Your task to perform on an android device: What is the news today? Image 0: 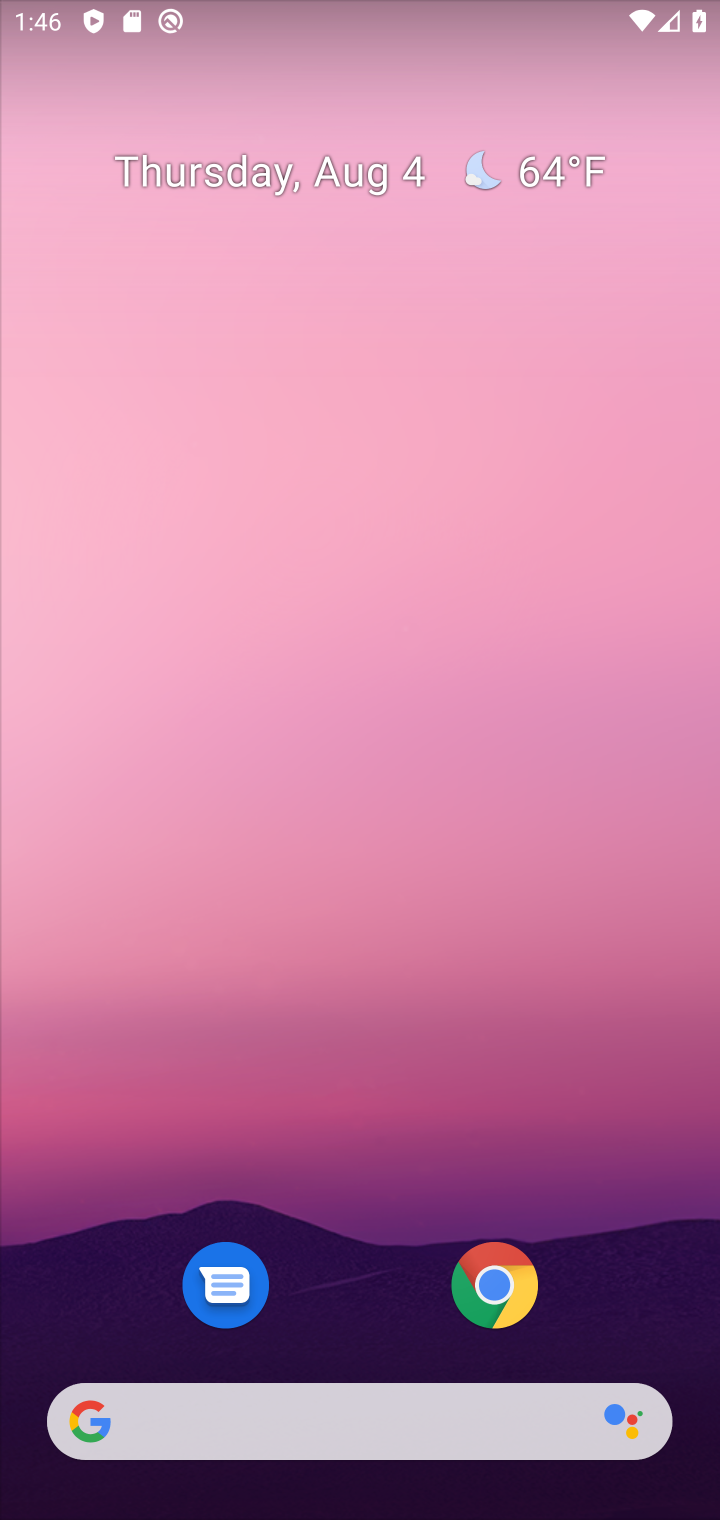
Step 0: drag from (15, 747) to (716, 708)
Your task to perform on an android device: What is the news today? Image 1: 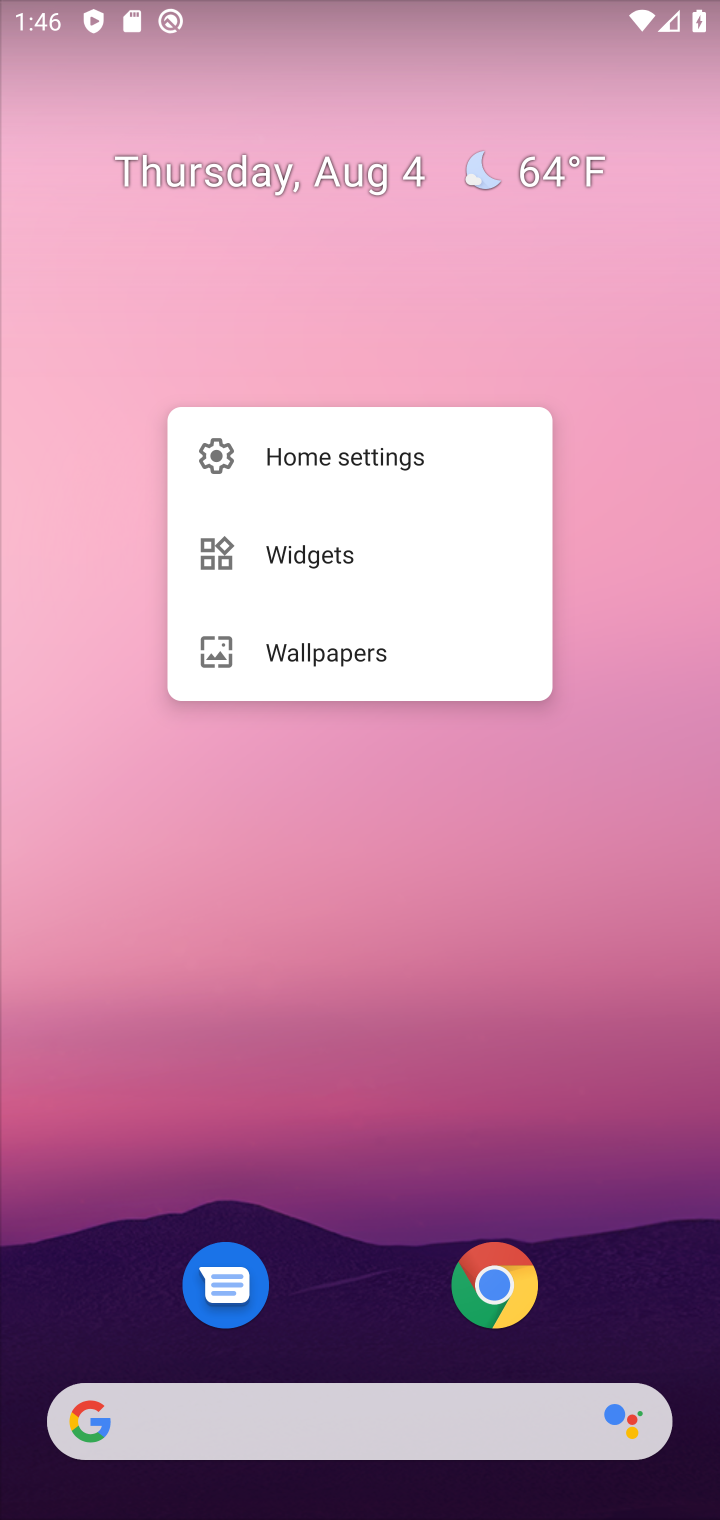
Step 1: task complete